Your task to perform on an android device: Show the shopping cart on walmart.com. Add "acer nitro" to the cart on walmart.com Image 0: 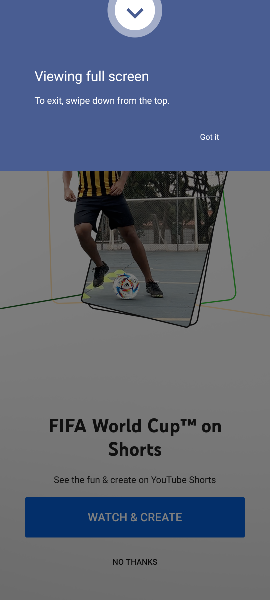
Step 0: press home button
Your task to perform on an android device: Show the shopping cart on walmart.com. Add "acer nitro" to the cart on walmart.com Image 1: 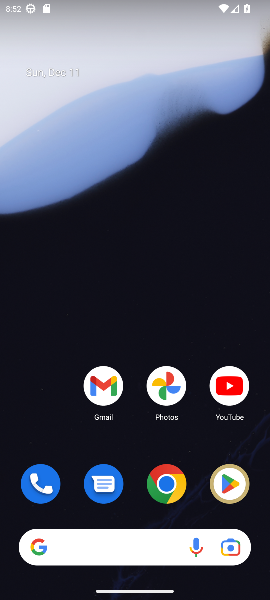
Step 1: click (169, 485)
Your task to perform on an android device: Show the shopping cart on walmart.com. Add "acer nitro" to the cart on walmart.com Image 2: 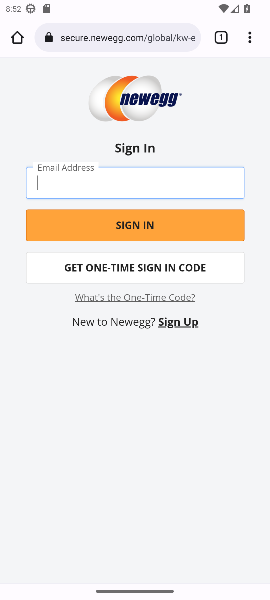
Step 2: click (82, 28)
Your task to perform on an android device: Show the shopping cart on walmart.com. Add "acer nitro" to the cart on walmart.com Image 3: 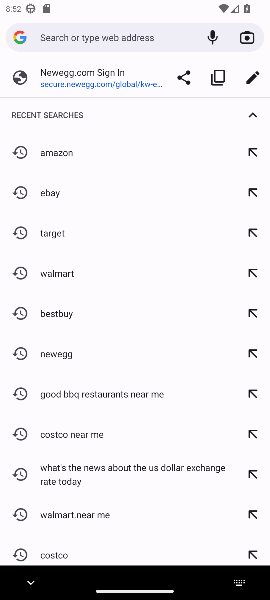
Step 3: click (56, 518)
Your task to perform on an android device: Show the shopping cart on walmart.com. Add "acer nitro" to the cart on walmart.com Image 4: 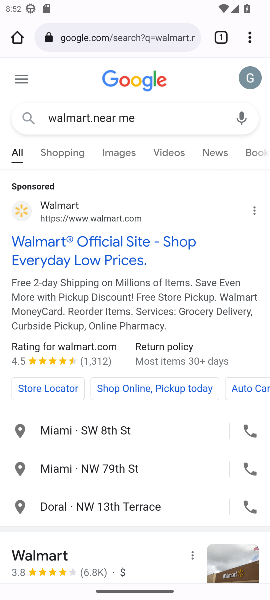
Step 4: click (60, 252)
Your task to perform on an android device: Show the shopping cart on walmart.com. Add "acer nitro" to the cart on walmart.com Image 5: 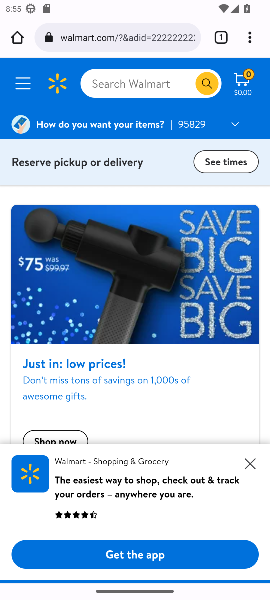
Step 5: click (242, 80)
Your task to perform on an android device: Show the shopping cart on walmart.com. Add "acer nitro" to the cart on walmart.com Image 6: 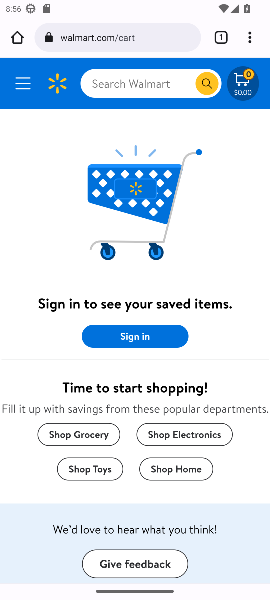
Step 6: click (145, 84)
Your task to perform on an android device: Show the shopping cart on walmart.com. Add "acer nitro" to the cart on walmart.com Image 7: 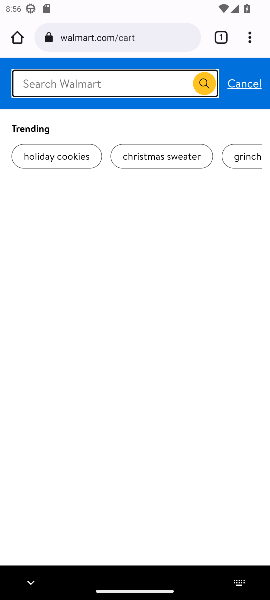
Step 7: type "acer nitro"
Your task to perform on an android device: Show the shopping cart on walmart.com. Add "acer nitro" to the cart on walmart.com Image 8: 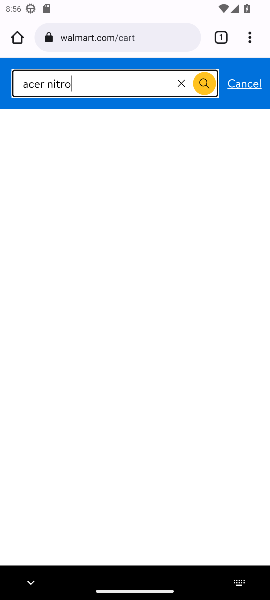
Step 8: type ""
Your task to perform on an android device: Show the shopping cart on walmart.com. Add "acer nitro" to the cart on walmart.com Image 9: 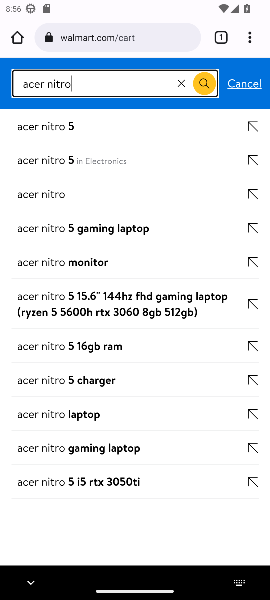
Step 9: click (201, 85)
Your task to perform on an android device: Show the shopping cart on walmart.com. Add "acer nitro" to the cart on walmart.com Image 10: 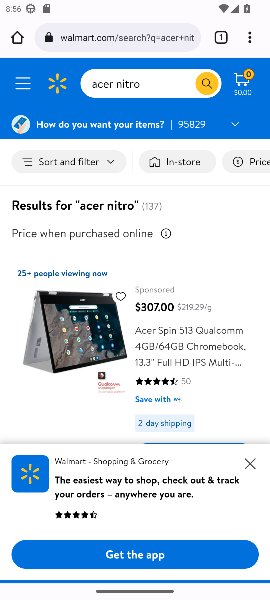
Step 10: click (252, 463)
Your task to perform on an android device: Show the shopping cart on walmart.com. Add "acer nitro" to the cart on walmart.com Image 11: 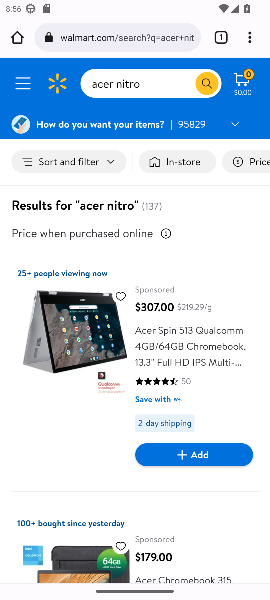
Step 11: drag from (75, 484) to (113, 210)
Your task to perform on an android device: Show the shopping cart on walmart.com. Add "acer nitro" to the cart on walmart.com Image 12: 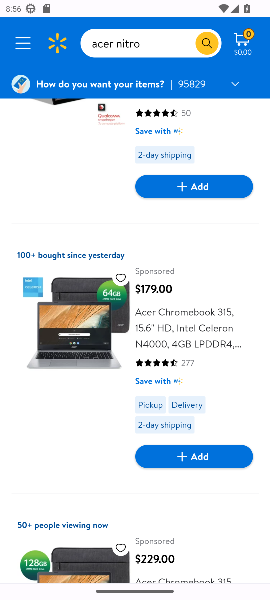
Step 12: drag from (86, 477) to (154, 200)
Your task to perform on an android device: Show the shopping cart on walmart.com. Add "acer nitro" to the cart on walmart.com Image 13: 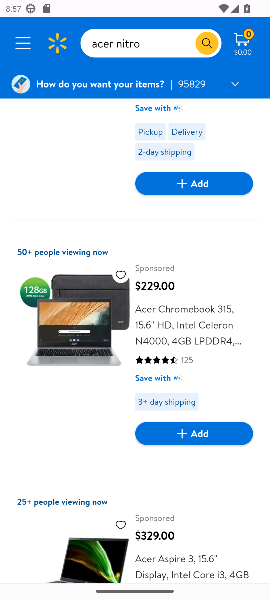
Step 13: drag from (207, 232) to (108, 563)
Your task to perform on an android device: Show the shopping cart on walmart.com. Add "acer nitro" to the cart on walmart.com Image 14: 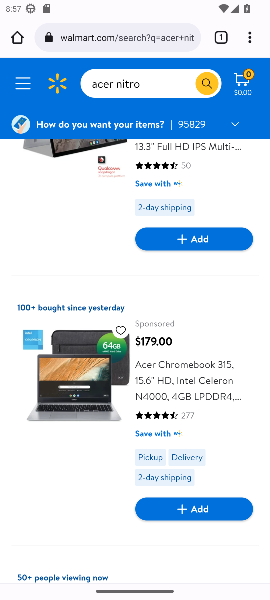
Step 14: click (161, 438)
Your task to perform on an android device: Show the shopping cart on walmart.com. Add "acer nitro" to the cart on walmart.com Image 15: 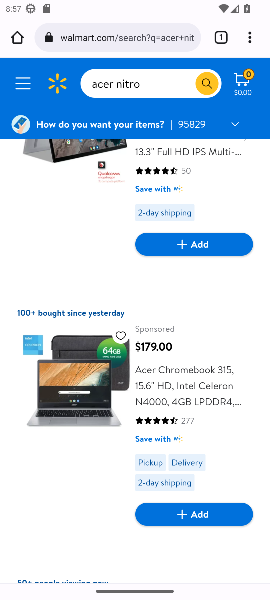
Step 15: task complete